Your task to perform on an android device: turn on the 12-hour format for clock Image 0: 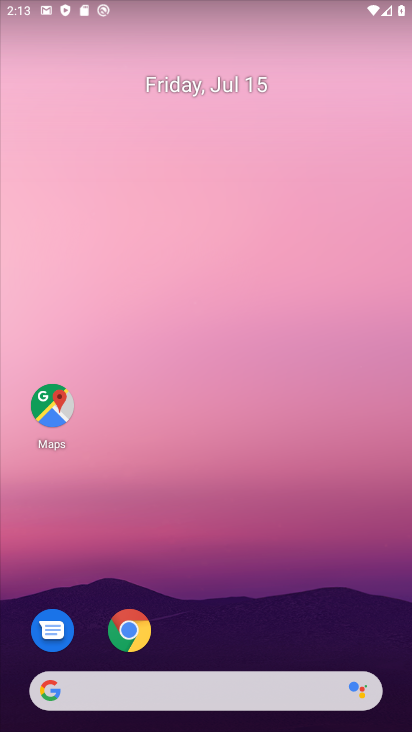
Step 0: drag from (223, 613) to (262, 95)
Your task to perform on an android device: turn on the 12-hour format for clock Image 1: 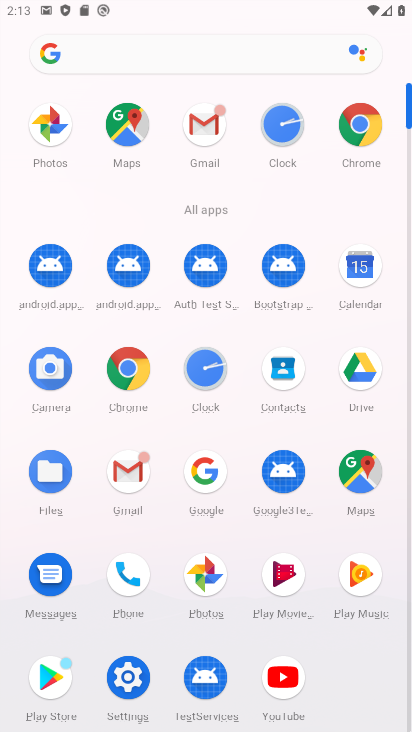
Step 1: click (204, 361)
Your task to perform on an android device: turn on the 12-hour format for clock Image 2: 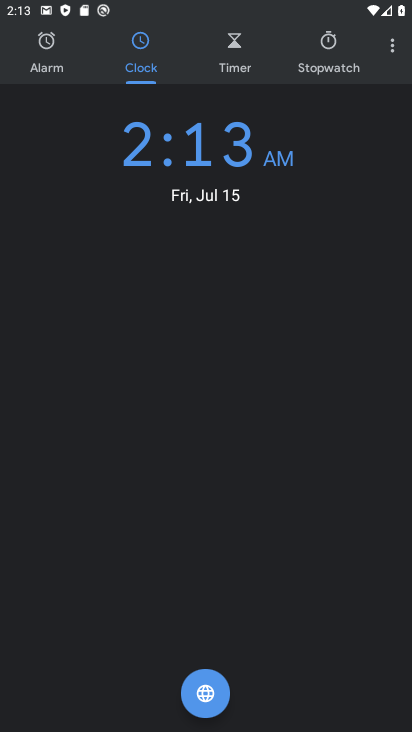
Step 2: click (390, 45)
Your task to perform on an android device: turn on the 12-hour format for clock Image 3: 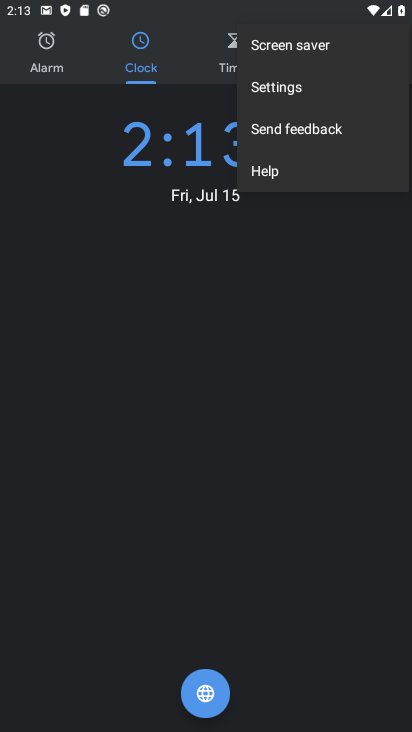
Step 3: click (363, 75)
Your task to perform on an android device: turn on the 12-hour format for clock Image 4: 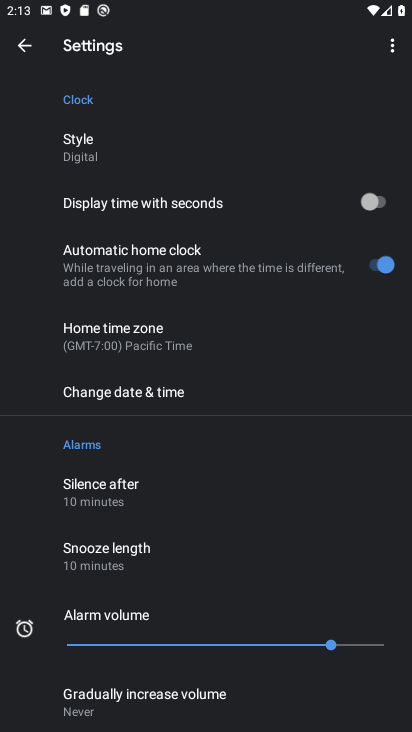
Step 4: click (193, 376)
Your task to perform on an android device: turn on the 12-hour format for clock Image 5: 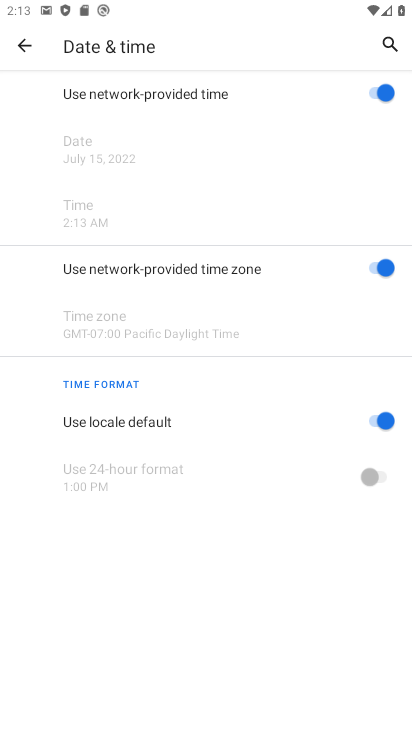
Step 5: task complete